Your task to perform on an android device: Open my contact list Image 0: 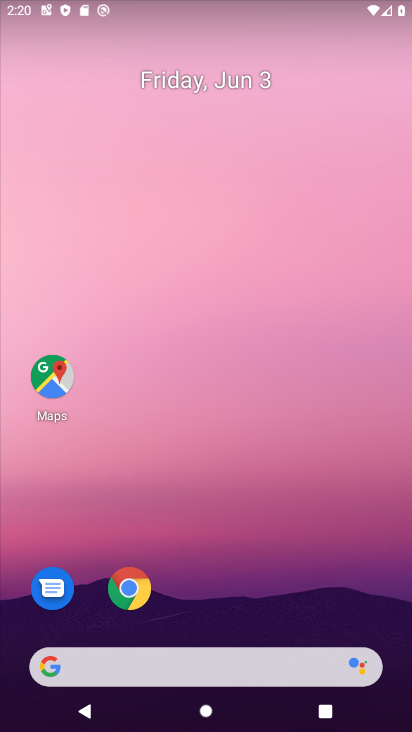
Step 0: drag from (245, 549) to (291, 43)
Your task to perform on an android device: Open my contact list Image 1: 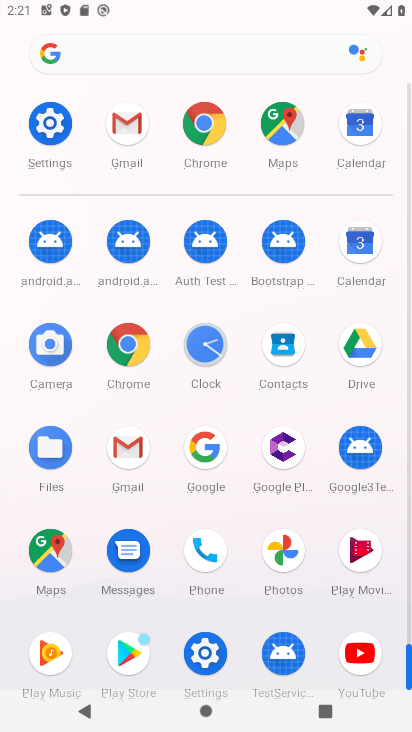
Step 1: click (289, 364)
Your task to perform on an android device: Open my contact list Image 2: 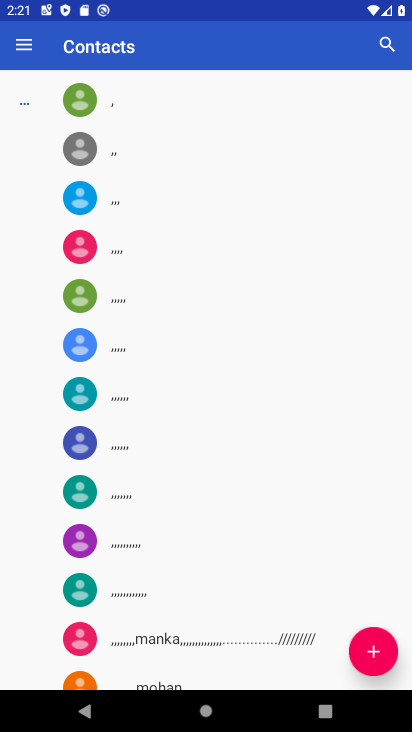
Step 2: task complete